Your task to perform on an android device: Set the phone to "Do not disturb". Image 0: 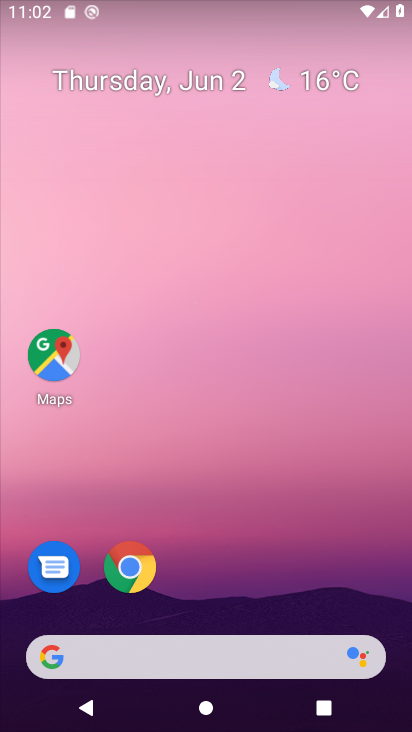
Step 0: drag from (221, 5) to (305, 576)
Your task to perform on an android device: Set the phone to "Do not disturb". Image 1: 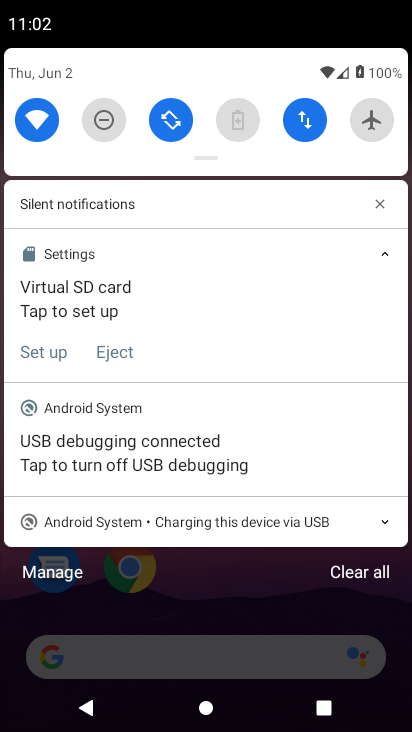
Step 1: click (112, 117)
Your task to perform on an android device: Set the phone to "Do not disturb". Image 2: 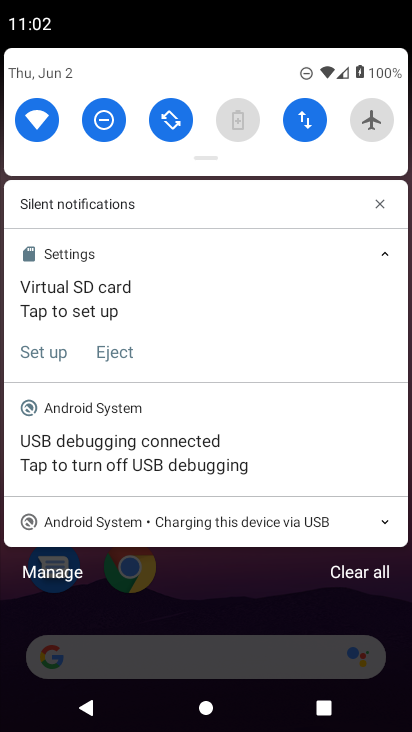
Step 2: task complete